Your task to perform on an android device: turn pop-ups off in chrome Image 0: 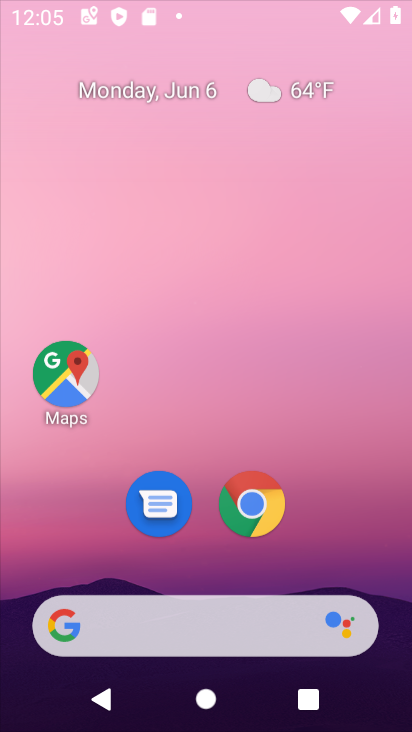
Step 0: click (308, 101)
Your task to perform on an android device: turn pop-ups off in chrome Image 1: 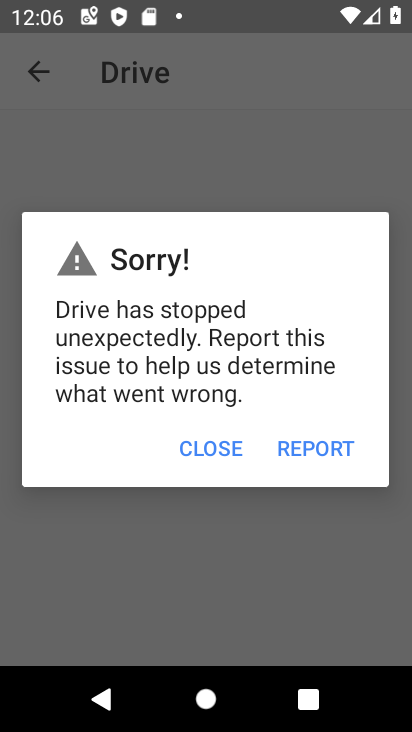
Step 1: press home button
Your task to perform on an android device: turn pop-ups off in chrome Image 2: 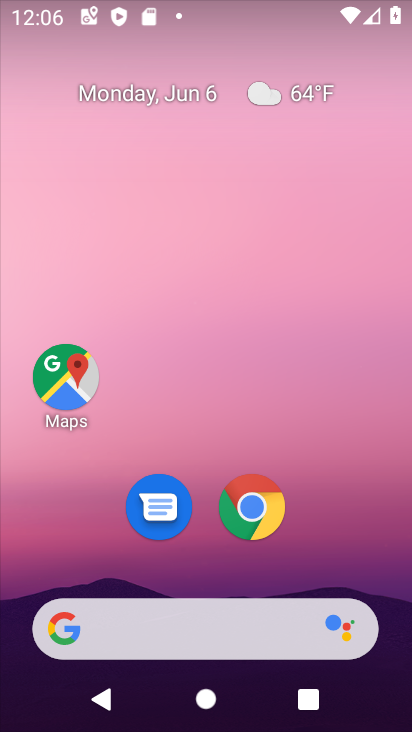
Step 2: drag from (345, 450) to (380, 61)
Your task to perform on an android device: turn pop-ups off in chrome Image 3: 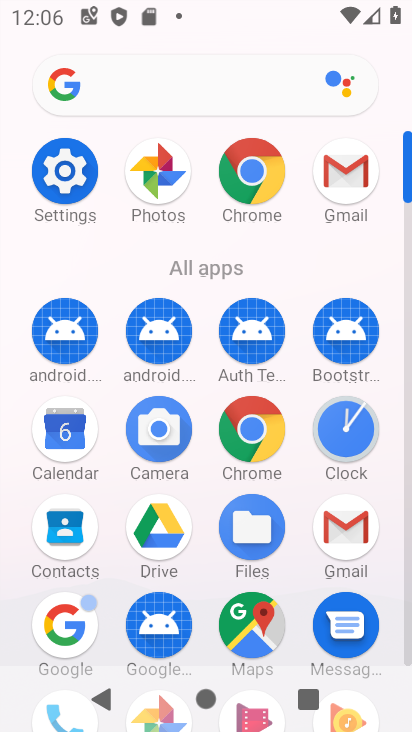
Step 3: click (62, 169)
Your task to perform on an android device: turn pop-ups off in chrome Image 4: 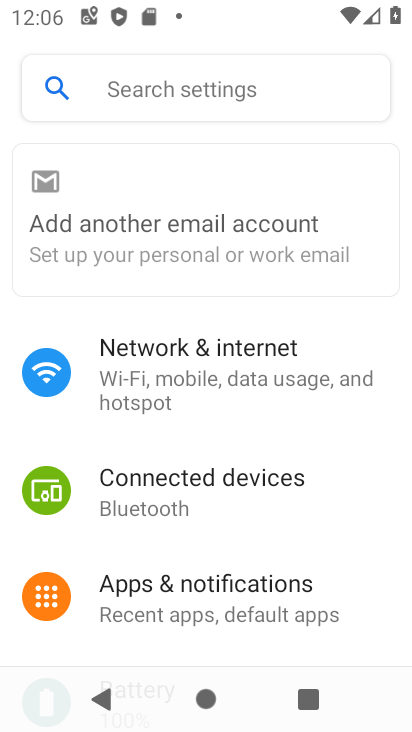
Step 4: press home button
Your task to perform on an android device: turn pop-ups off in chrome Image 5: 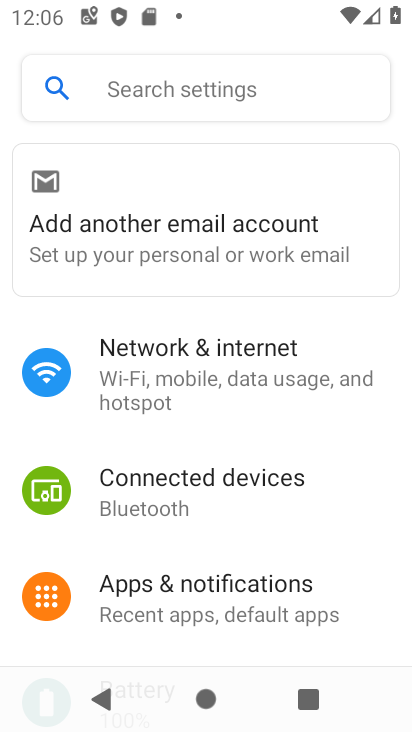
Step 5: press home button
Your task to perform on an android device: turn pop-ups off in chrome Image 6: 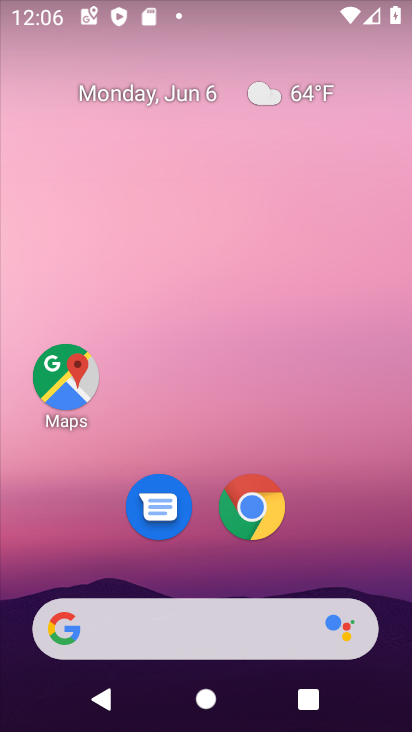
Step 6: click (257, 527)
Your task to perform on an android device: turn pop-ups off in chrome Image 7: 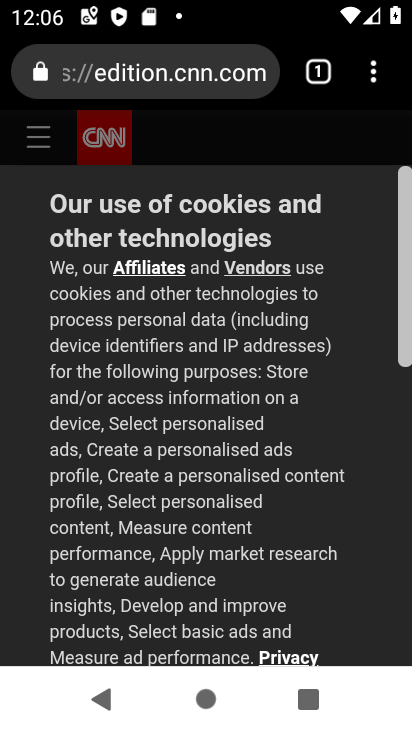
Step 7: click (373, 63)
Your task to perform on an android device: turn pop-ups off in chrome Image 8: 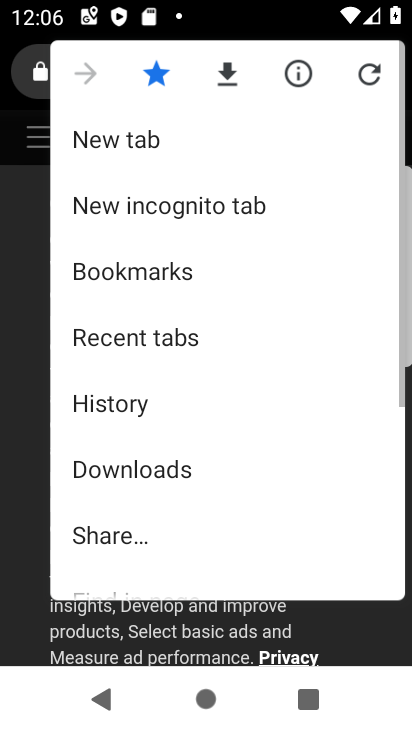
Step 8: drag from (206, 513) to (293, 102)
Your task to perform on an android device: turn pop-ups off in chrome Image 9: 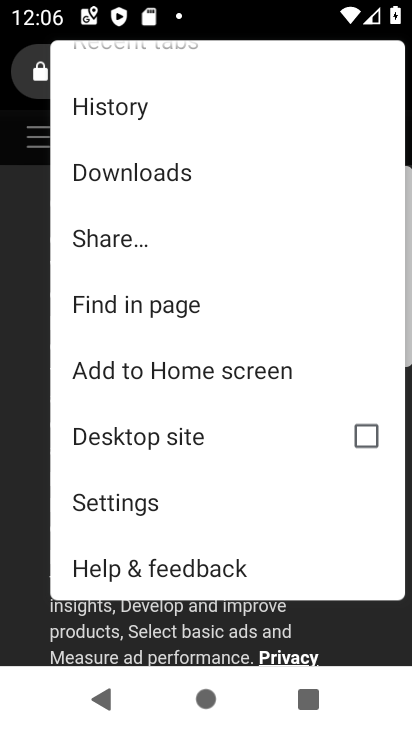
Step 9: click (159, 490)
Your task to perform on an android device: turn pop-ups off in chrome Image 10: 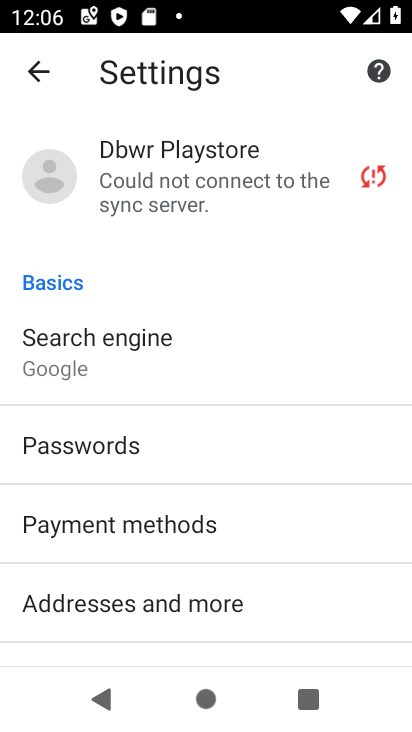
Step 10: drag from (185, 549) to (245, 139)
Your task to perform on an android device: turn pop-ups off in chrome Image 11: 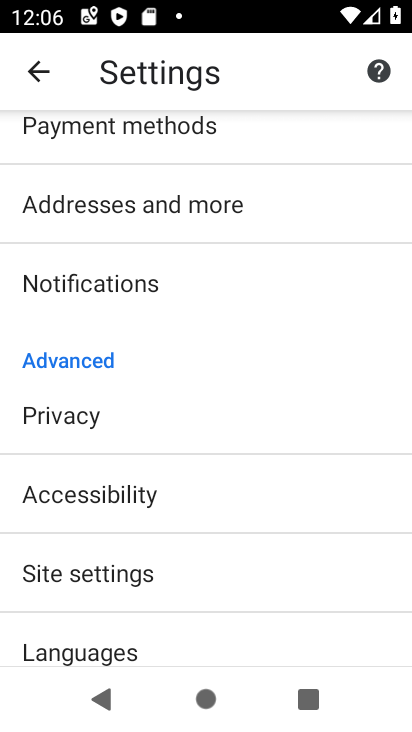
Step 11: drag from (159, 527) to (242, 229)
Your task to perform on an android device: turn pop-ups off in chrome Image 12: 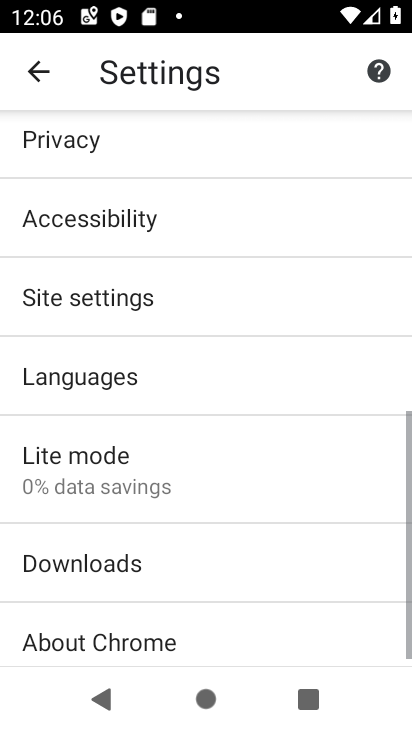
Step 12: click (256, 192)
Your task to perform on an android device: turn pop-ups off in chrome Image 13: 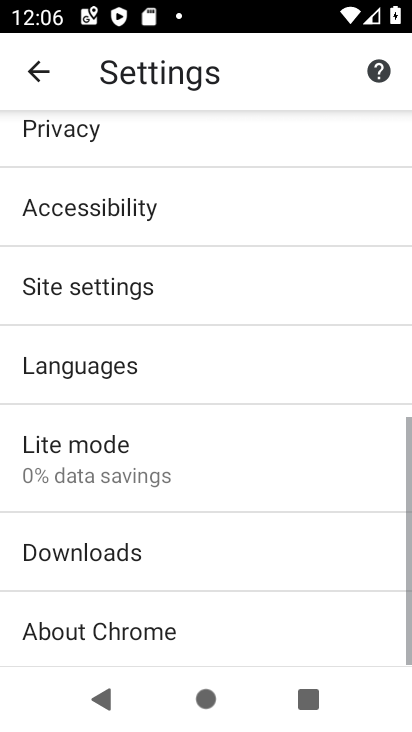
Step 13: click (256, 192)
Your task to perform on an android device: turn pop-ups off in chrome Image 14: 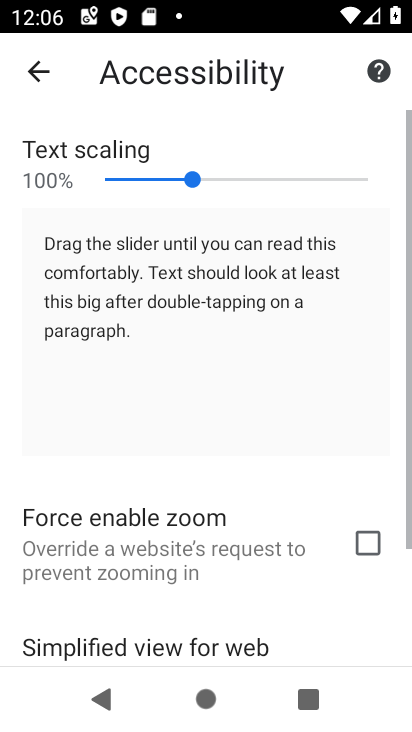
Step 14: click (48, 71)
Your task to perform on an android device: turn pop-ups off in chrome Image 15: 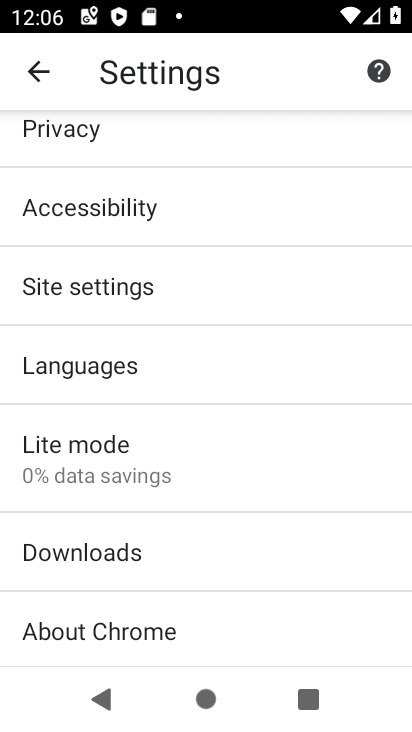
Step 15: click (105, 282)
Your task to perform on an android device: turn pop-ups off in chrome Image 16: 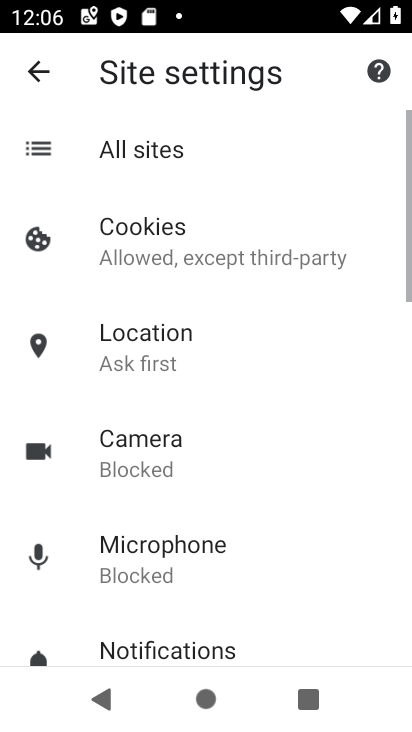
Step 16: drag from (181, 570) to (239, 127)
Your task to perform on an android device: turn pop-ups off in chrome Image 17: 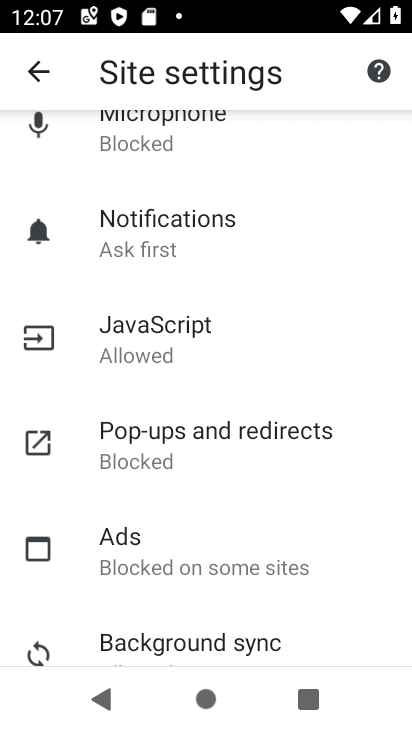
Step 17: click (159, 426)
Your task to perform on an android device: turn pop-ups off in chrome Image 18: 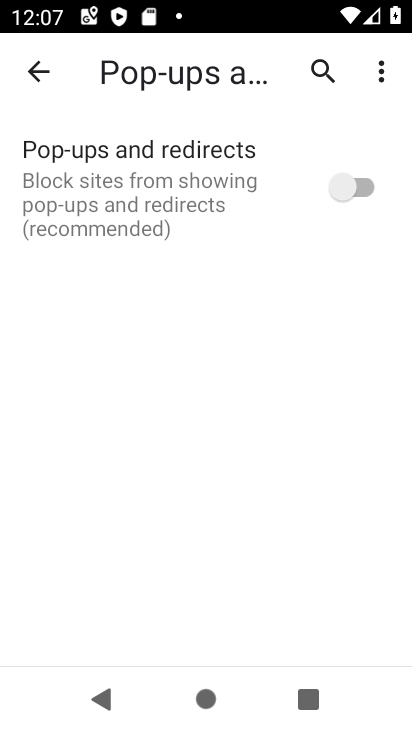
Step 18: task complete